Your task to perform on an android device: What's on my calendar today? Image 0: 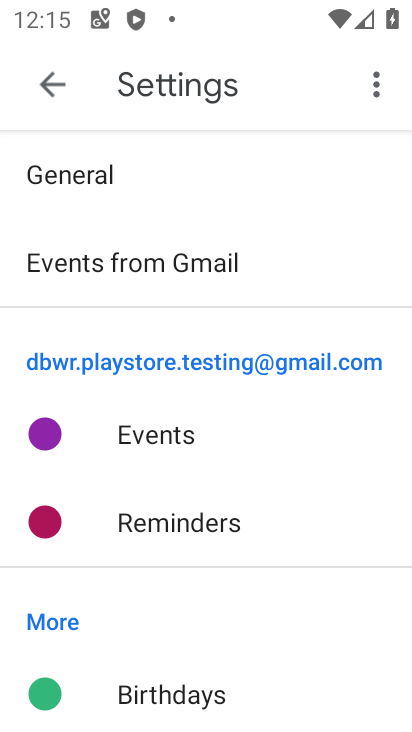
Step 0: press back button
Your task to perform on an android device: What's on my calendar today? Image 1: 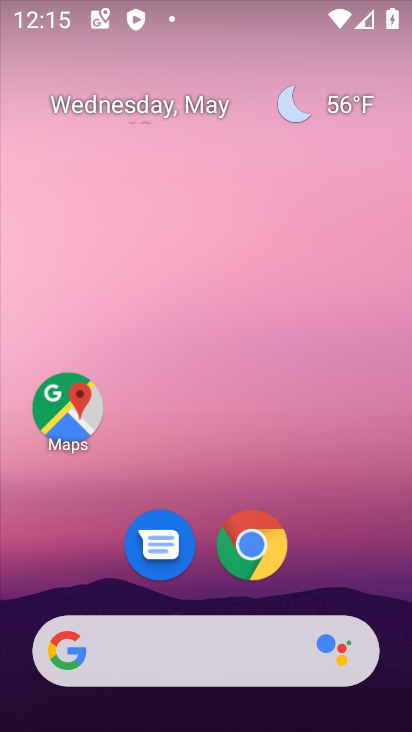
Step 1: drag from (335, 586) to (298, 87)
Your task to perform on an android device: What's on my calendar today? Image 2: 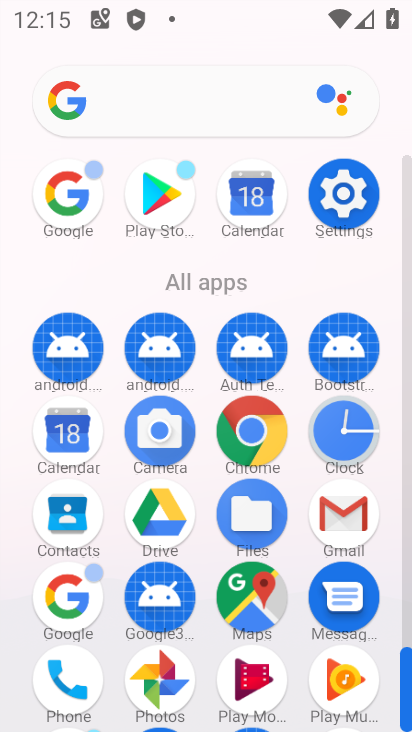
Step 2: click (65, 433)
Your task to perform on an android device: What's on my calendar today? Image 3: 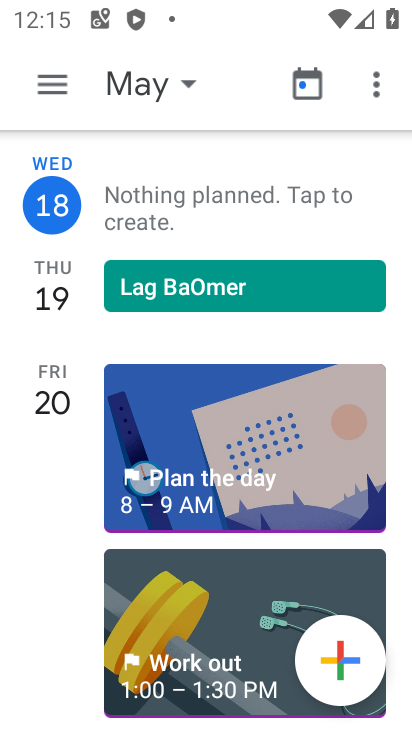
Step 3: click (60, 74)
Your task to perform on an android device: What's on my calendar today? Image 4: 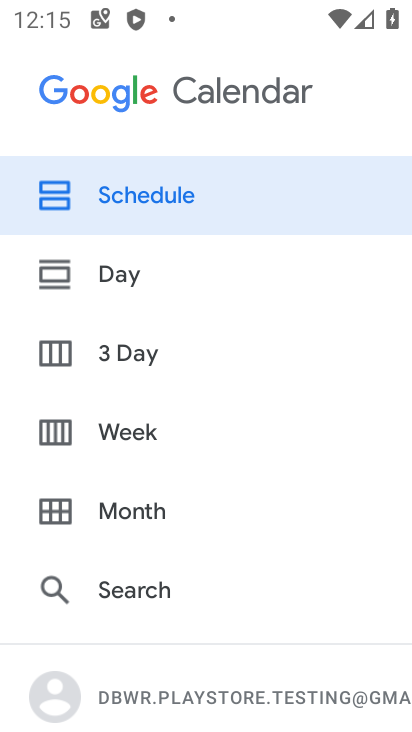
Step 4: click (140, 181)
Your task to perform on an android device: What's on my calendar today? Image 5: 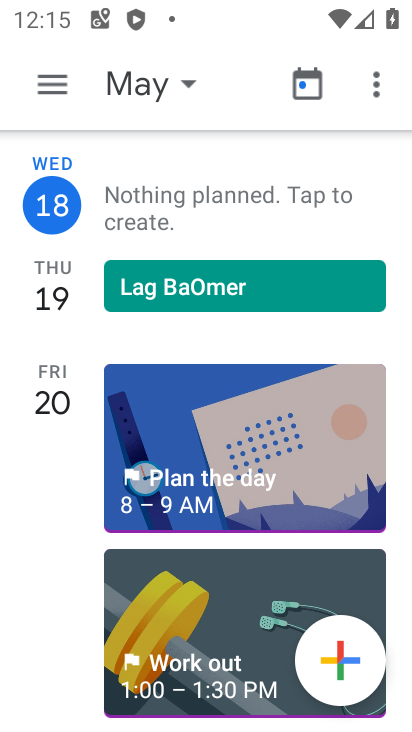
Step 5: click (193, 75)
Your task to perform on an android device: What's on my calendar today? Image 6: 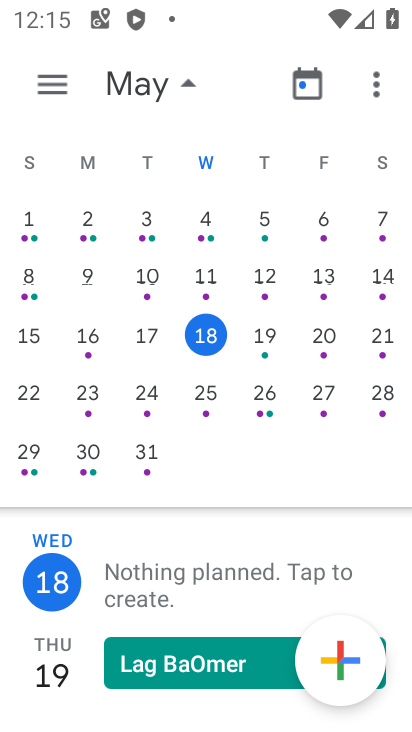
Step 6: click (204, 339)
Your task to perform on an android device: What's on my calendar today? Image 7: 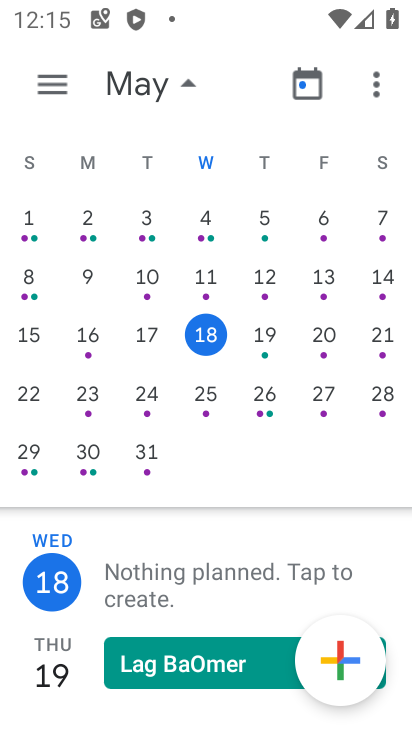
Step 7: task complete